Your task to perform on an android device: allow cookies in the chrome app Image 0: 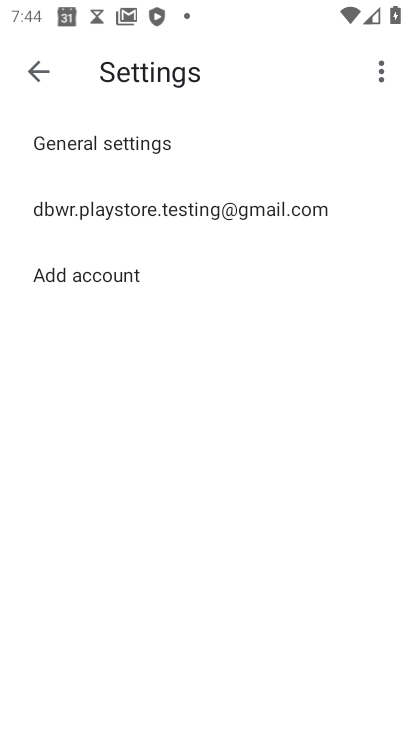
Step 0: press home button
Your task to perform on an android device: allow cookies in the chrome app Image 1: 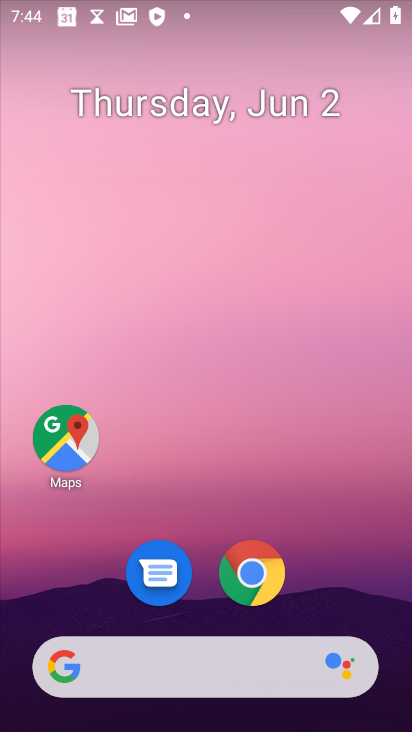
Step 1: drag from (138, 670) to (296, 170)
Your task to perform on an android device: allow cookies in the chrome app Image 2: 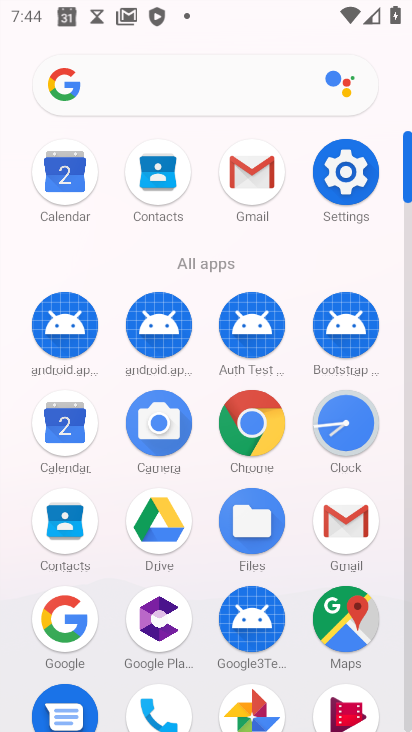
Step 2: click (246, 430)
Your task to perform on an android device: allow cookies in the chrome app Image 3: 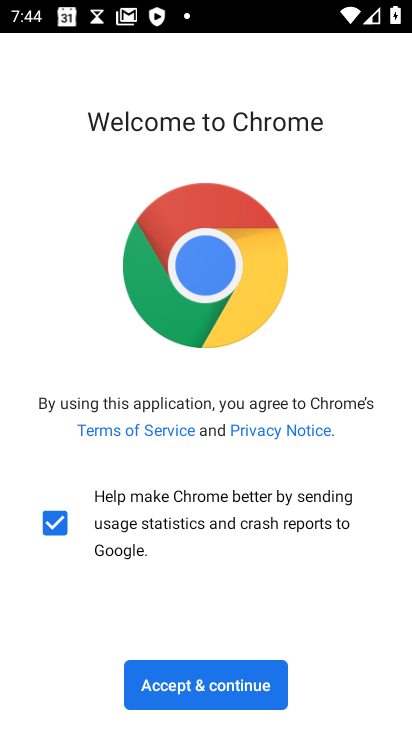
Step 3: click (202, 686)
Your task to perform on an android device: allow cookies in the chrome app Image 4: 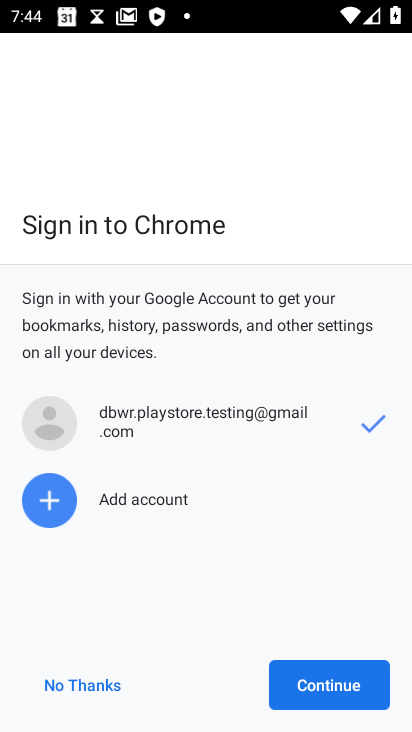
Step 4: click (299, 684)
Your task to perform on an android device: allow cookies in the chrome app Image 5: 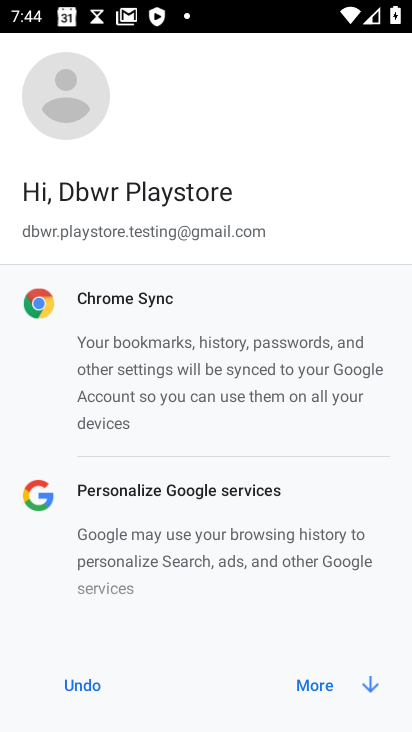
Step 5: click (309, 686)
Your task to perform on an android device: allow cookies in the chrome app Image 6: 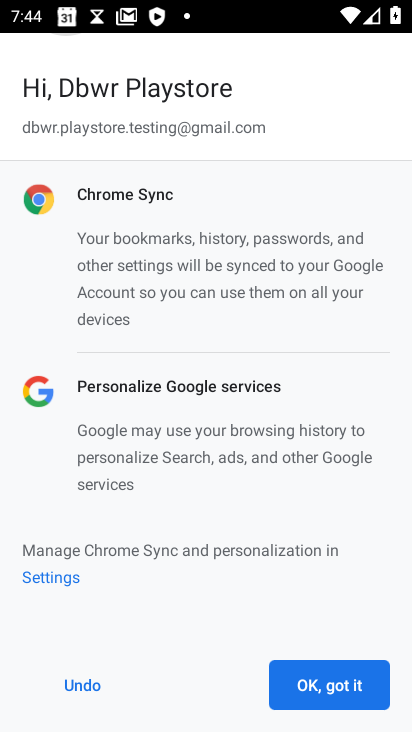
Step 6: click (330, 681)
Your task to perform on an android device: allow cookies in the chrome app Image 7: 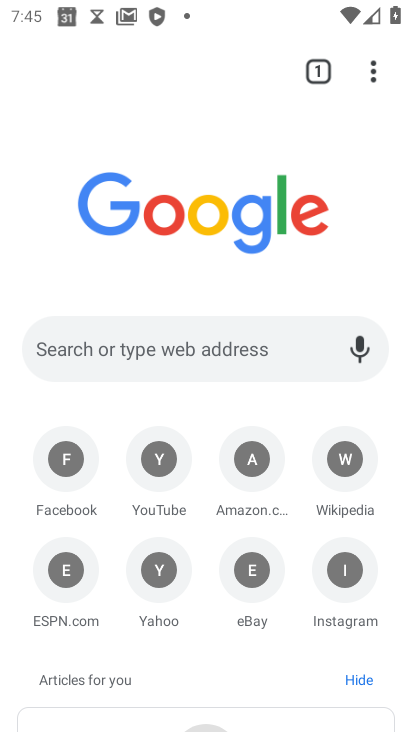
Step 7: drag from (373, 74) to (191, 595)
Your task to perform on an android device: allow cookies in the chrome app Image 8: 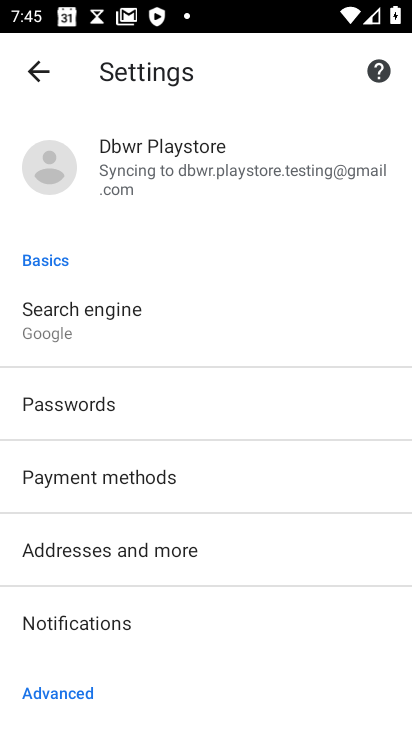
Step 8: drag from (214, 578) to (330, 114)
Your task to perform on an android device: allow cookies in the chrome app Image 9: 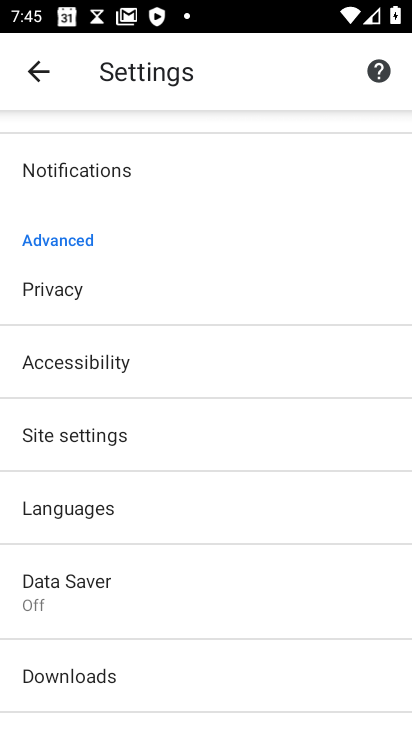
Step 9: click (100, 441)
Your task to perform on an android device: allow cookies in the chrome app Image 10: 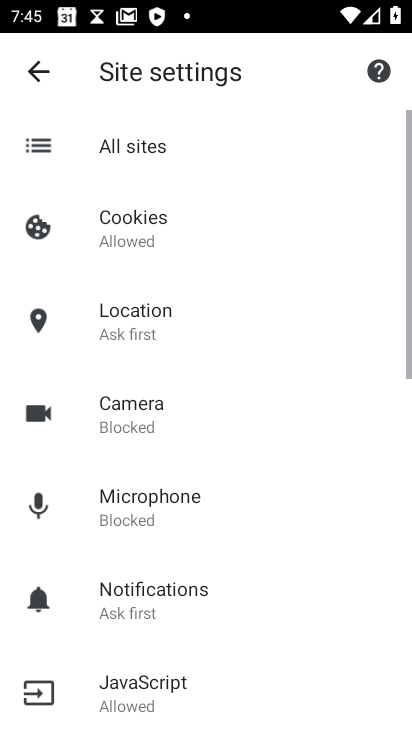
Step 10: click (137, 229)
Your task to perform on an android device: allow cookies in the chrome app Image 11: 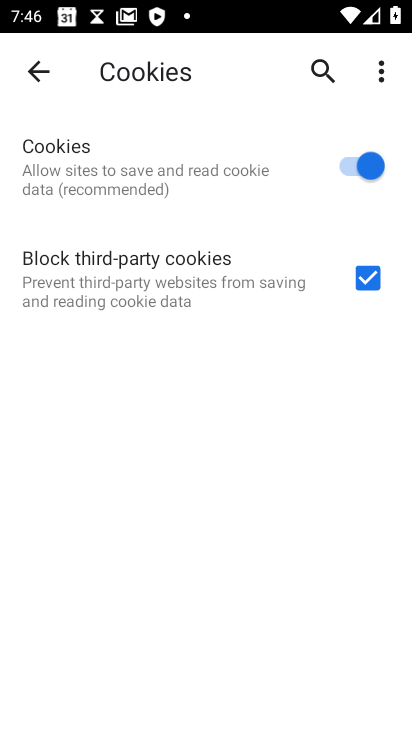
Step 11: task complete